Your task to perform on an android device: turn on translation in the chrome app Image 0: 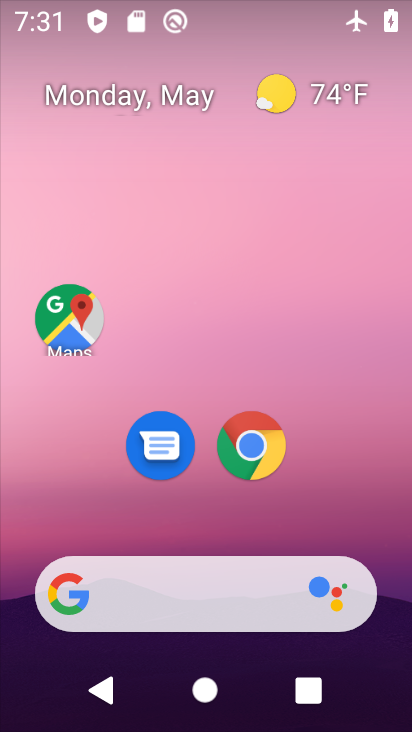
Step 0: press home button
Your task to perform on an android device: turn on translation in the chrome app Image 1: 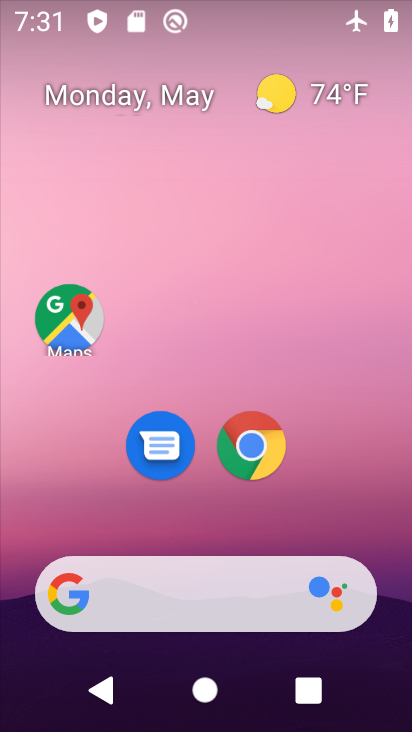
Step 1: click (243, 451)
Your task to perform on an android device: turn on translation in the chrome app Image 2: 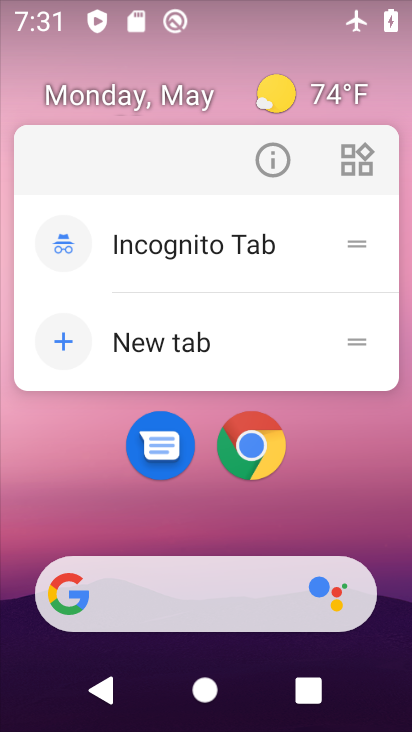
Step 2: click (252, 467)
Your task to perform on an android device: turn on translation in the chrome app Image 3: 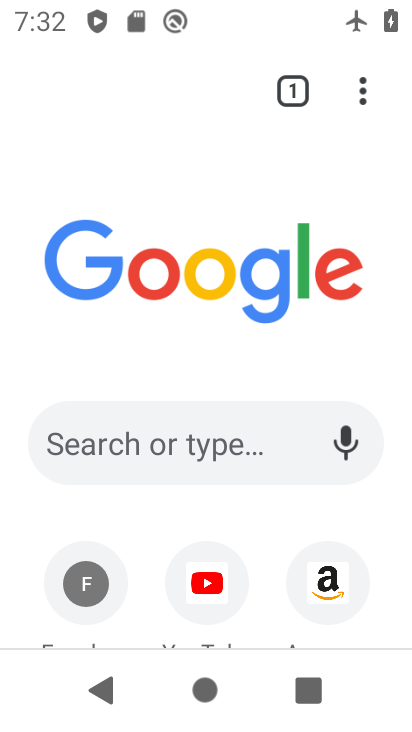
Step 3: drag from (368, 92) to (241, 484)
Your task to perform on an android device: turn on translation in the chrome app Image 4: 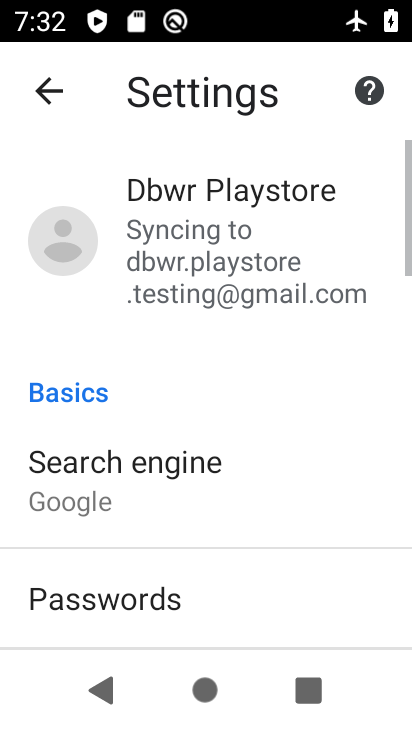
Step 4: drag from (225, 581) to (338, 118)
Your task to perform on an android device: turn on translation in the chrome app Image 5: 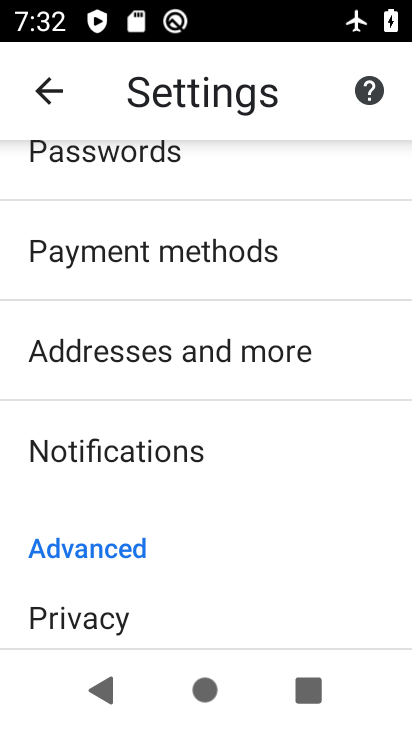
Step 5: drag from (206, 574) to (396, 189)
Your task to perform on an android device: turn on translation in the chrome app Image 6: 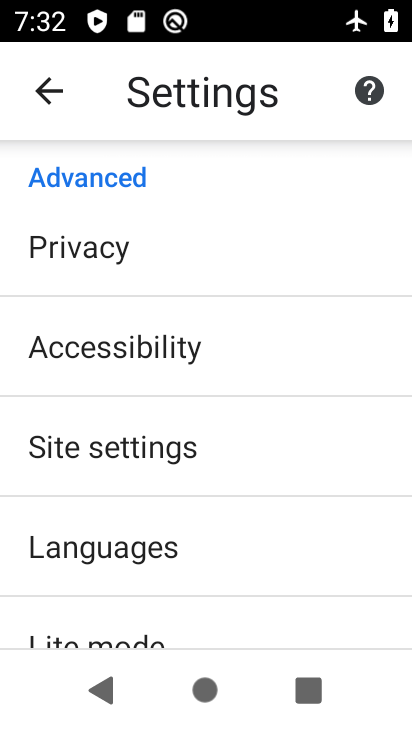
Step 6: drag from (255, 560) to (329, 316)
Your task to perform on an android device: turn on translation in the chrome app Image 7: 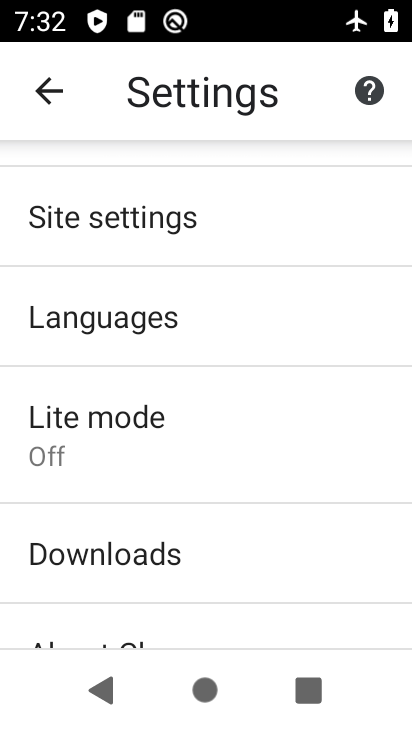
Step 7: click (128, 318)
Your task to perform on an android device: turn on translation in the chrome app Image 8: 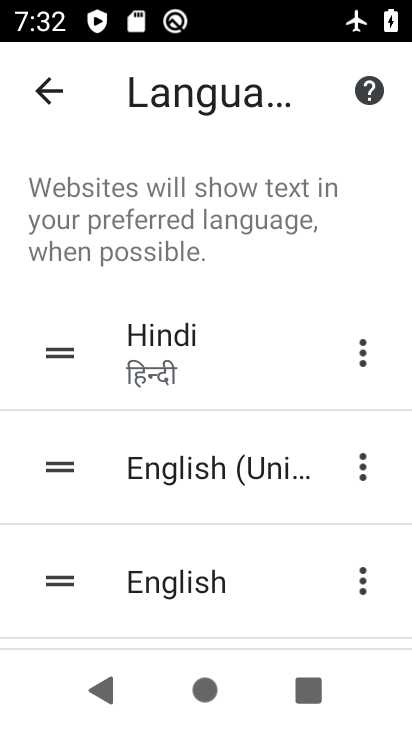
Step 8: task complete